Your task to perform on an android device: Open the calendar and show me this week's events? Image 0: 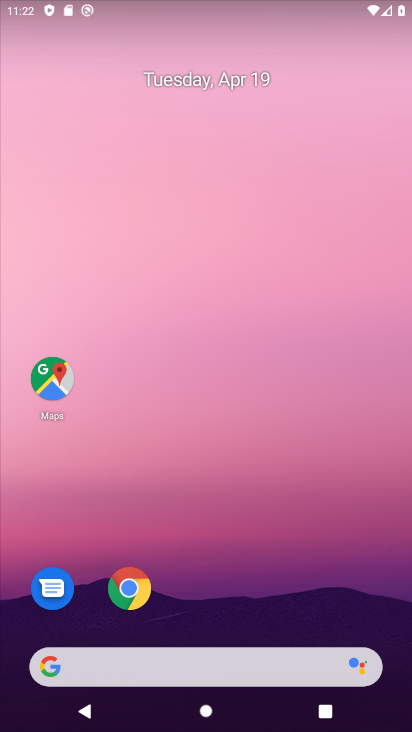
Step 0: press home button
Your task to perform on an android device: Open the calendar and show me this week's events? Image 1: 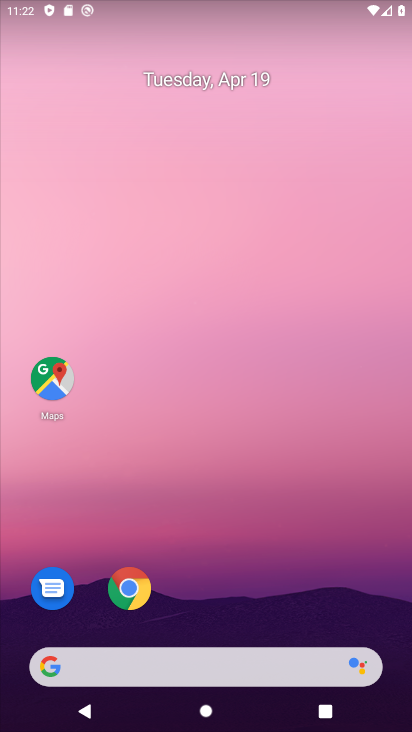
Step 1: drag from (203, 598) to (234, 2)
Your task to perform on an android device: Open the calendar and show me this week's events? Image 2: 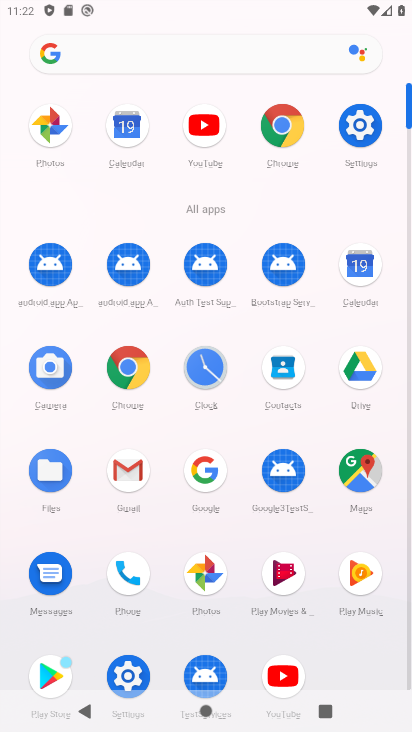
Step 2: click (353, 272)
Your task to perform on an android device: Open the calendar and show me this week's events? Image 3: 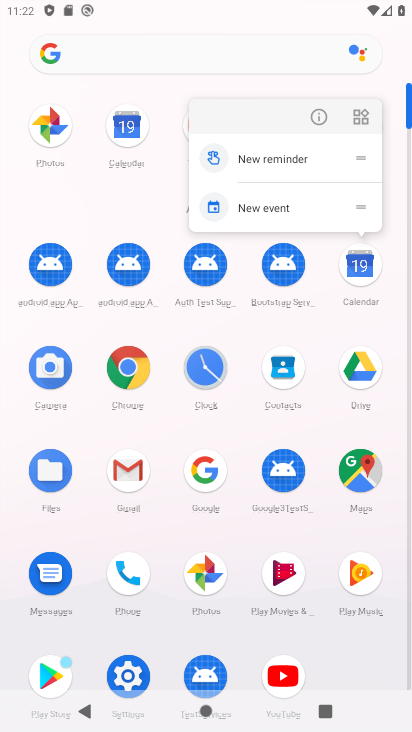
Step 3: click (356, 270)
Your task to perform on an android device: Open the calendar and show me this week's events? Image 4: 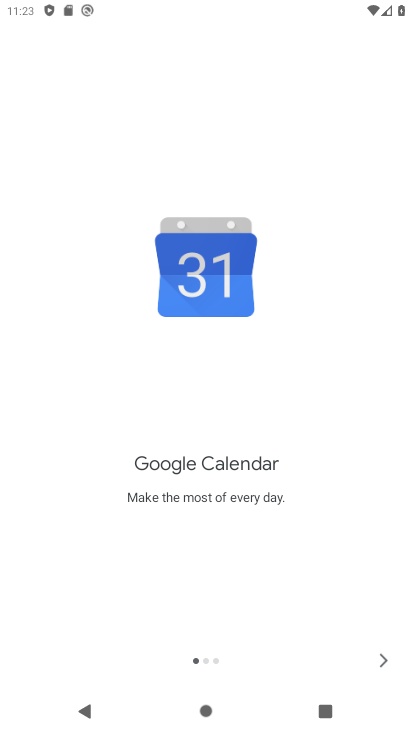
Step 4: click (383, 657)
Your task to perform on an android device: Open the calendar and show me this week's events? Image 5: 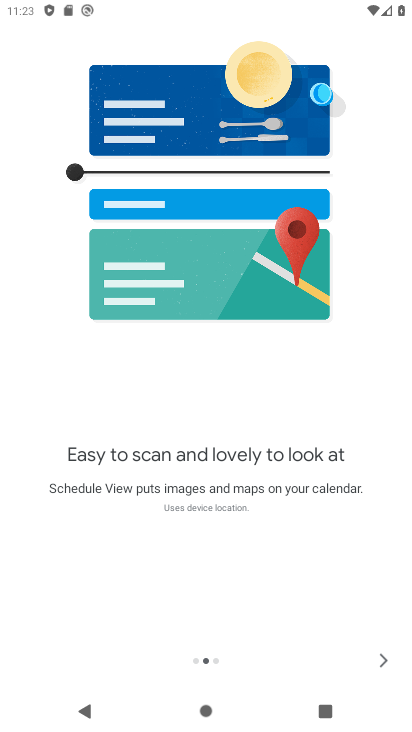
Step 5: click (377, 658)
Your task to perform on an android device: Open the calendar and show me this week's events? Image 6: 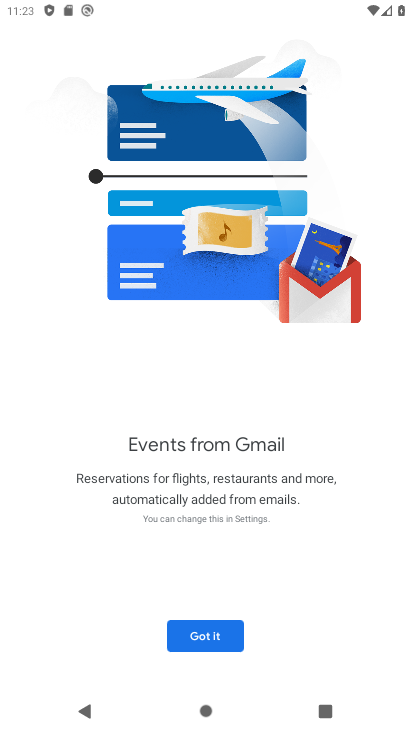
Step 6: click (199, 630)
Your task to perform on an android device: Open the calendar and show me this week's events? Image 7: 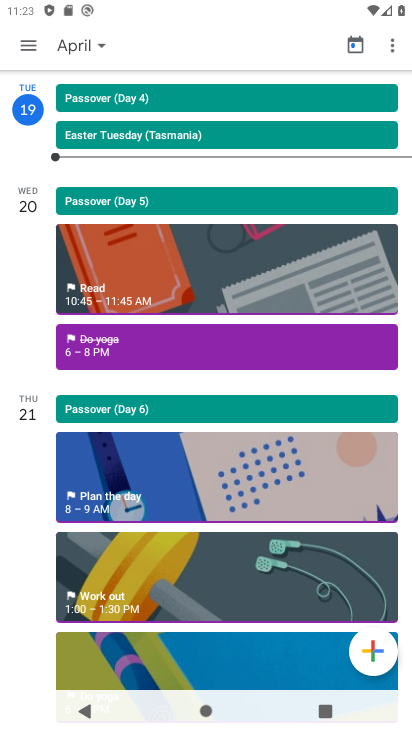
Step 7: task complete